Your task to perform on an android device: Open the stopwatch Image 0: 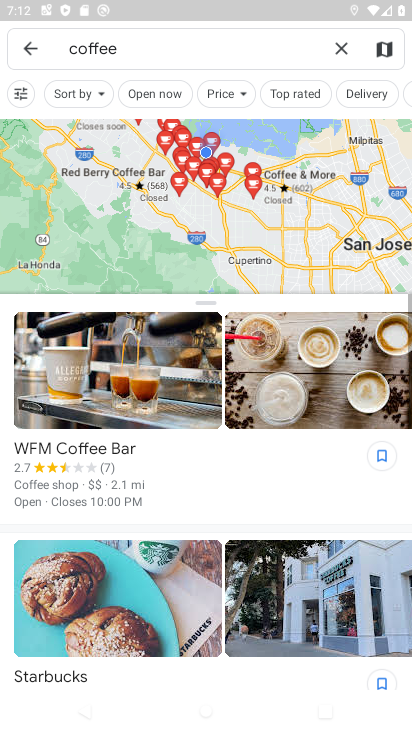
Step 0: press home button
Your task to perform on an android device: Open the stopwatch Image 1: 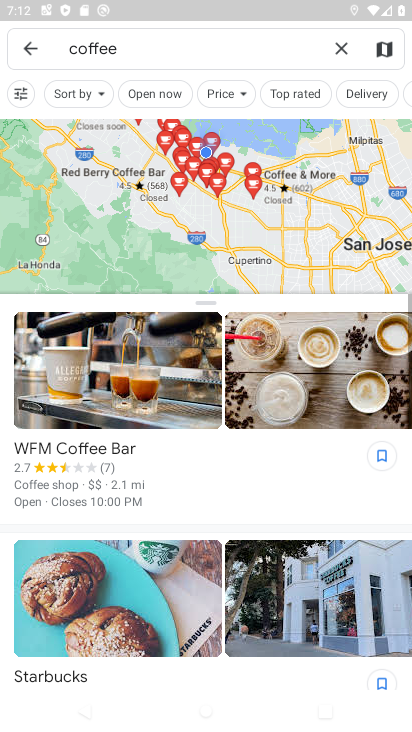
Step 1: drag from (290, 249) to (244, 93)
Your task to perform on an android device: Open the stopwatch Image 2: 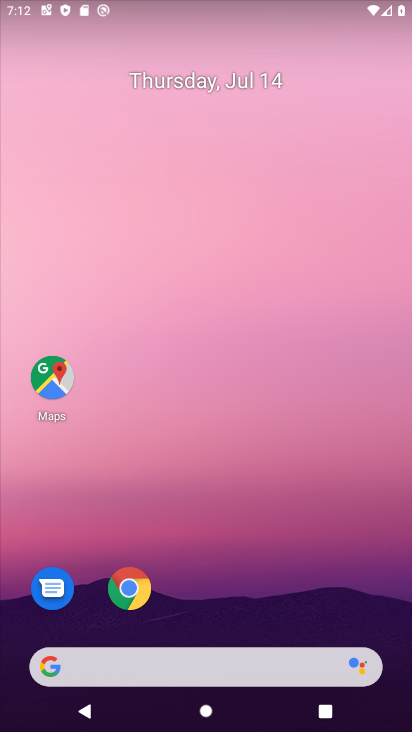
Step 2: drag from (301, 582) to (237, 0)
Your task to perform on an android device: Open the stopwatch Image 3: 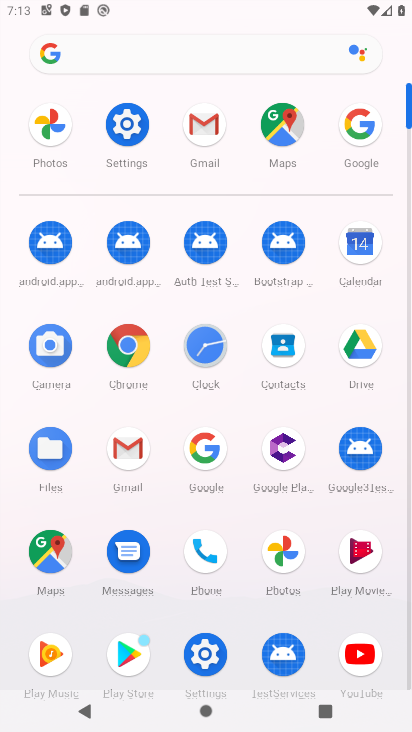
Step 3: click (197, 348)
Your task to perform on an android device: Open the stopwatch Image 4: 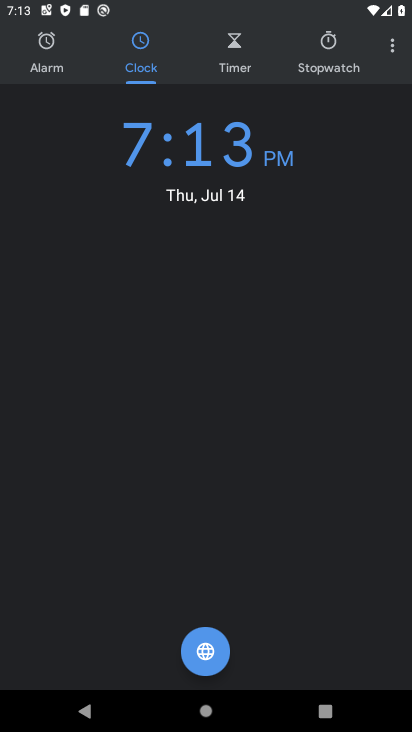
Step 4: click (325, 40)
Your task to perform on an android device: Open the stopwatch Image 5: 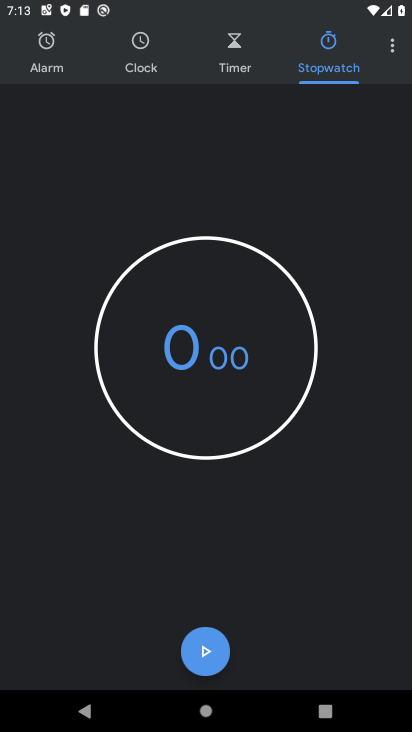
Step 5: task complete